Your task to perform on an android device: Open display settings Image 0: 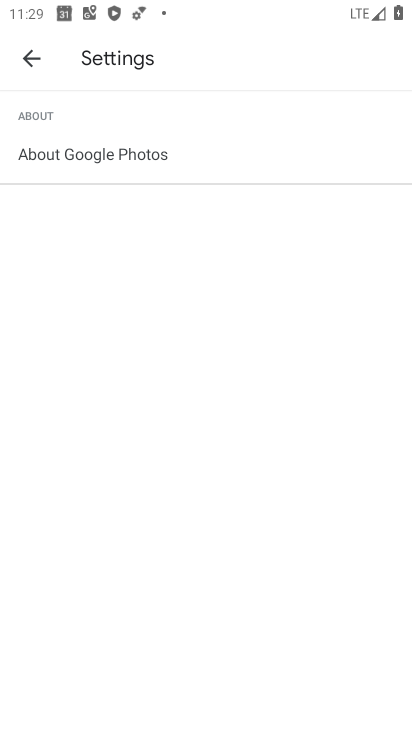
Step 0: press home button
Your task to perform on an android device: Open display settings Image 1: 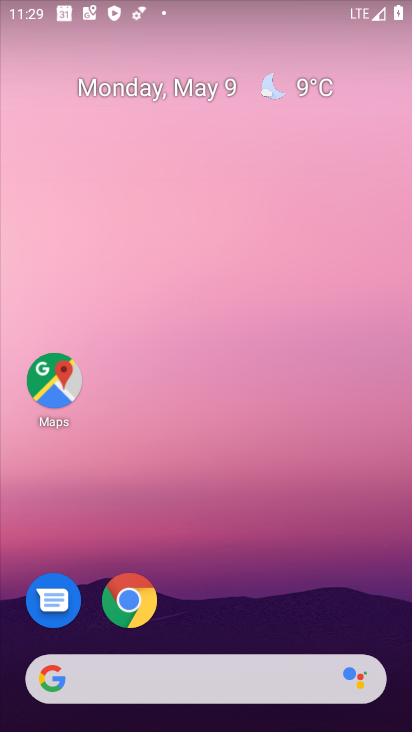
Step 1: drag from (377, 639) to (358, 178)
Your task to perform on an android device: Open display settings Image 2: 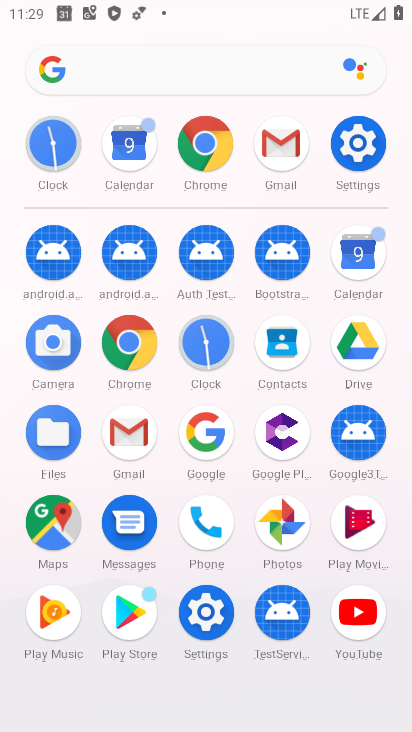
Step 2: click (359, 159)
Your task to perform on an android device: Open display settings Image 3: 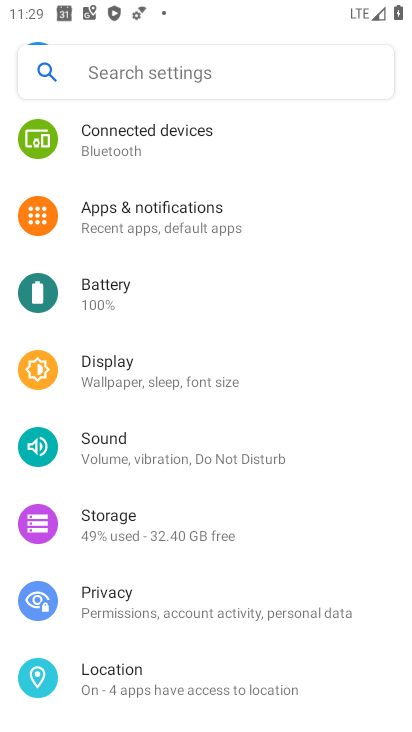
Step 3: drag from (390, 609) to (372, 229)
Your task to perform on an android device: Open display settings Image 4: 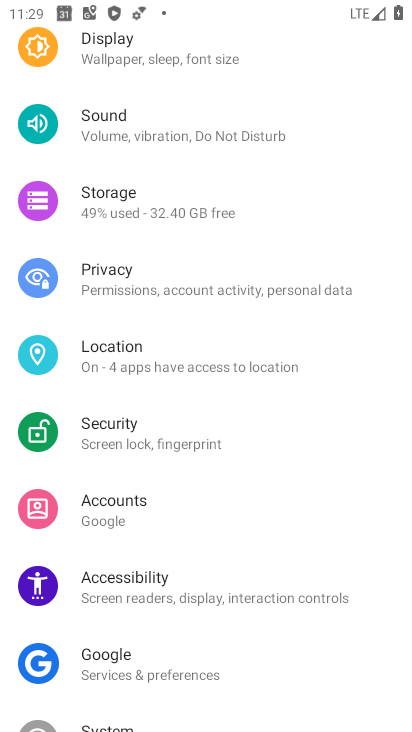
Step 4: click (162, 63)
Your task to perform on an android device: Open display settings Image 5: 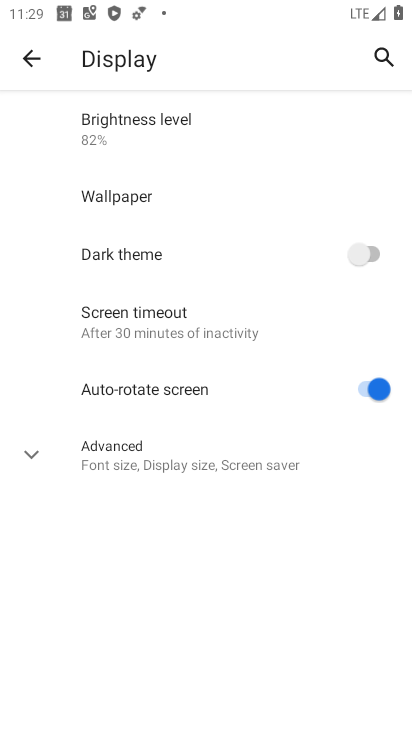
Step 5: task complete